Your task to perform on an android device: set default search engine in the chrome app Image 0: 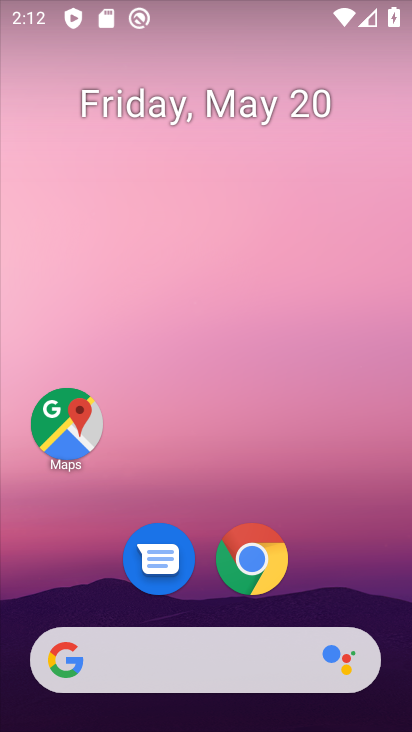
Step 0: click (260, 562)
Your task to perform on an android device: set default search engine in the chrome app Image 1: 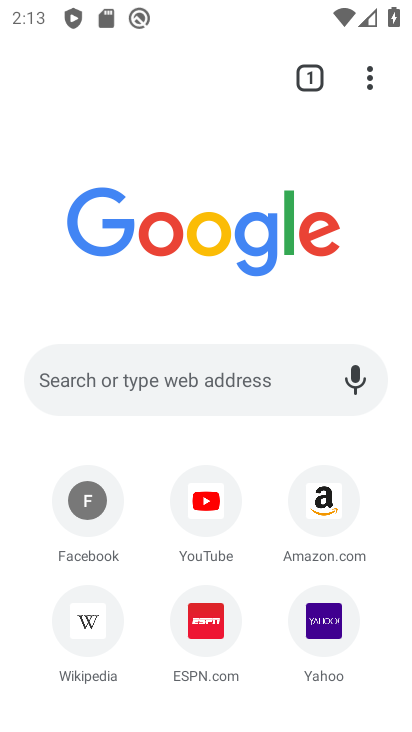
Step 1: click (370, 75)
Your task to perform on an android device: set default search engine in the chrome app Image 2: 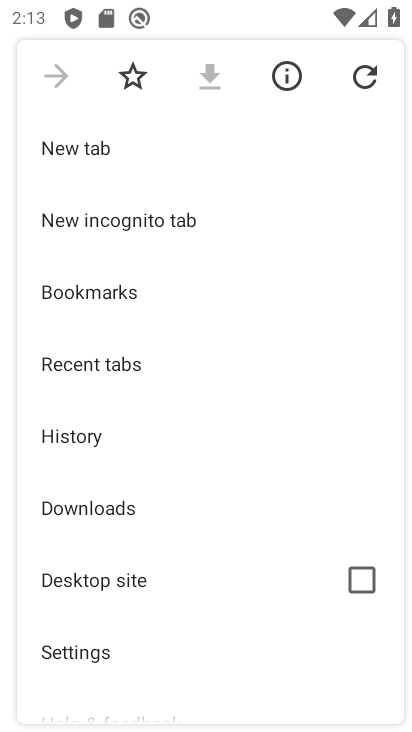
Step 2: click (124, 659)
Your task to perform on an android device: set default search engine in the chrome app Image 3: 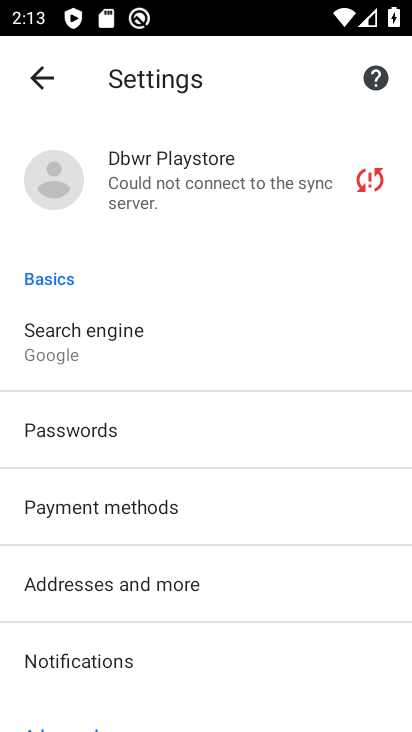
Step 3: drag from (222, 601) to (219, 317)
Your task to perform on an android device: set default search engine in the chrome app Image 4: 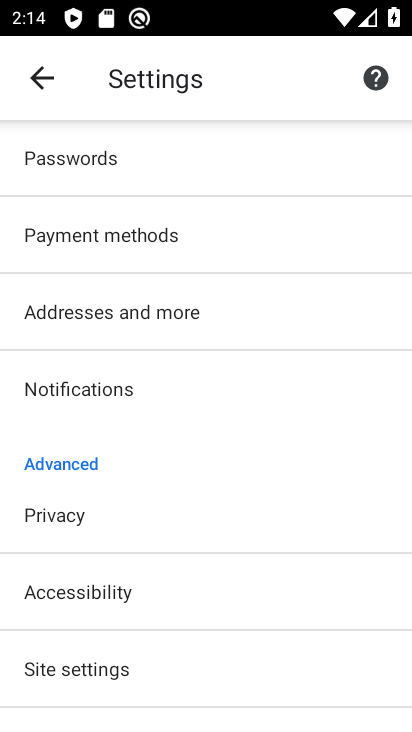
Step 4: click (190, 668)
Your task to perform on an android device: set default search engine in the chrome app Image 5: 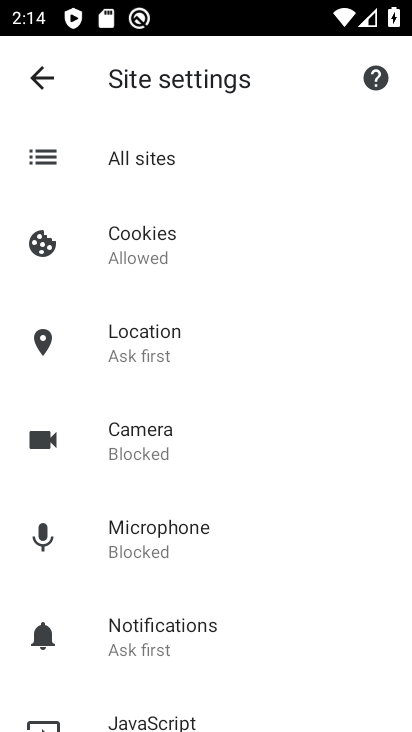
Step 5: click (36, 82)
Your task to perform on an android device: set default search engine in the chrome app Image 6: 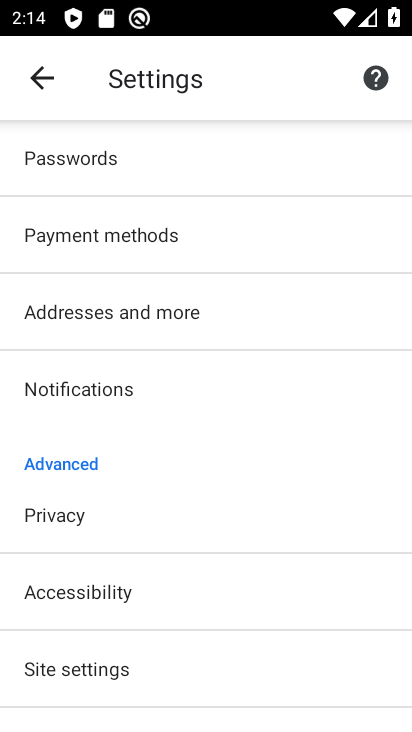
Step 6: drag from (244, 383) to (225, 626)
Your task to perform on an android device: set default search engine in the chrome app Image 7: 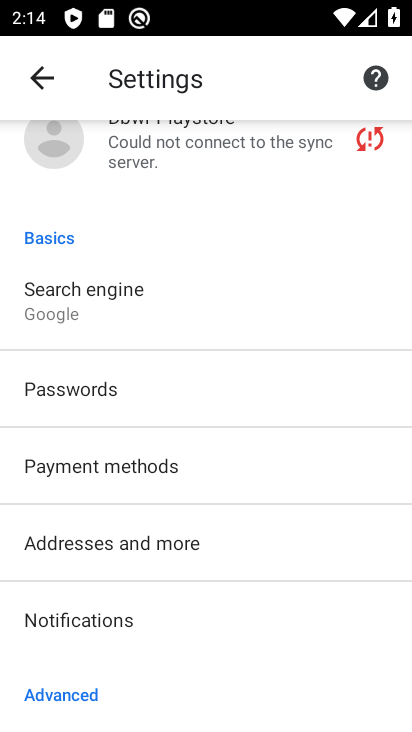
Step 7: click (60, 300)
Your task to perform on an android device: set default search engine in the chrome app Image 8: 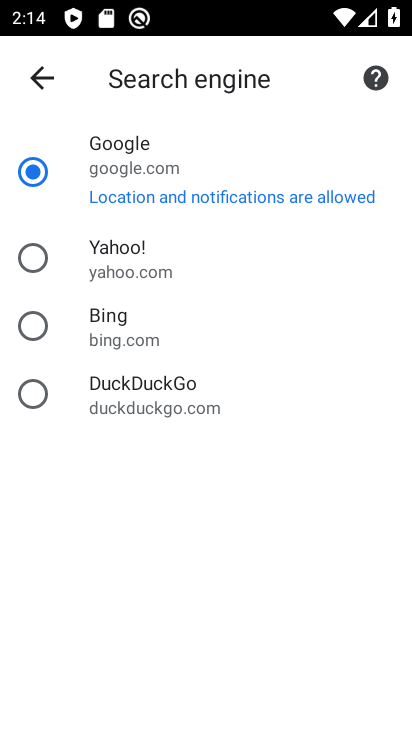
Step 8: task complete